Your task to perform on an android device: check android version Image 0: 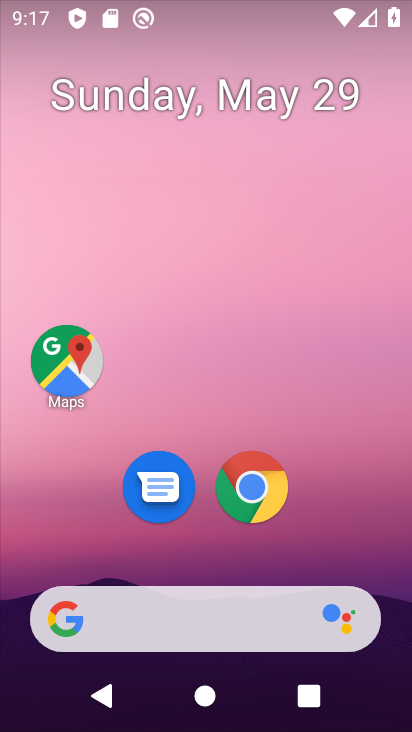
Step 0: drag from (394, 696) to (304, 186)
Your task to perform on an android device: check android version Image 1: 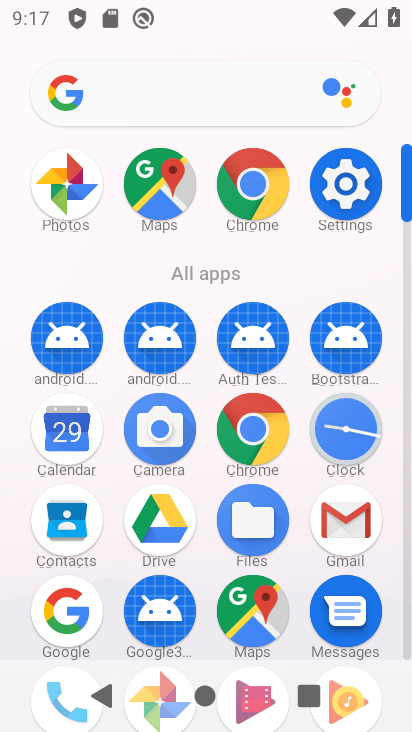
Step 1: click (336, 179)
Your task to perform on an android device: check android version Image 2: 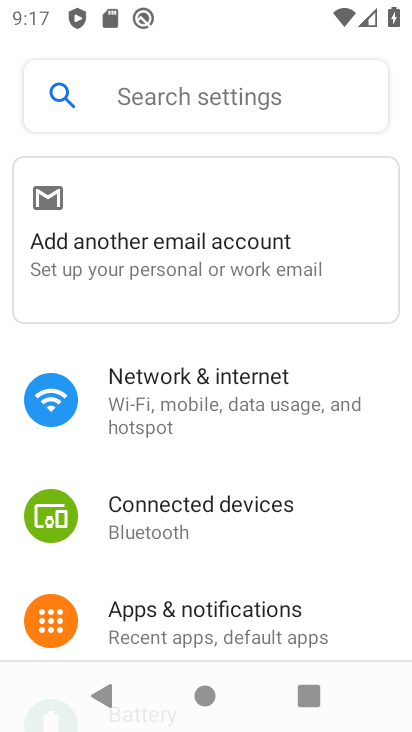
Step 2: drag from (333, 640) to (331, 120)
Your task to perform on an android device: check android version Image 3: 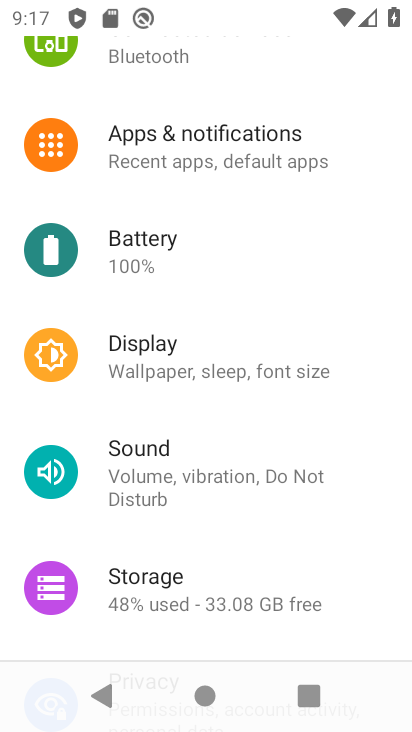
Step 3: drag from (366, 658) to (297, 0)
Your task to perform on an android device: check android version Image 4: 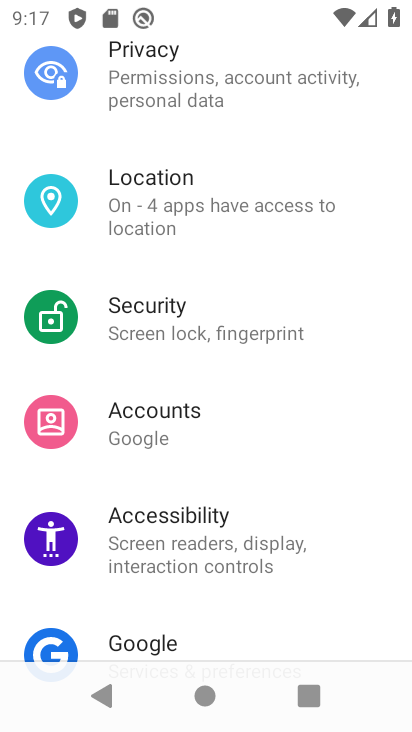
Step 4: drag from (331, 649) to (284, 27)
Your task to perform on an android device: check android version Image 5: 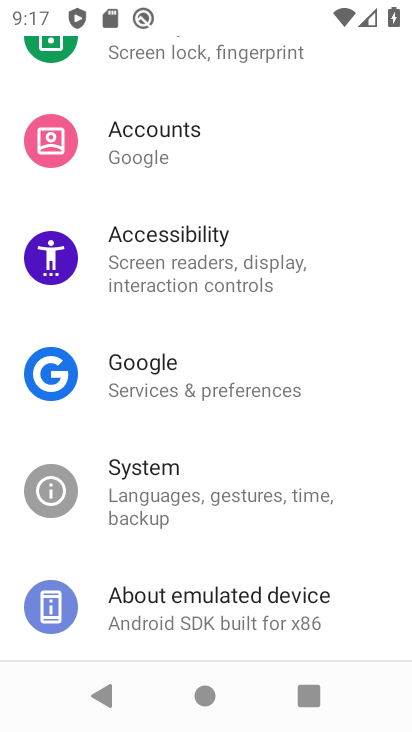
Step 5: click (170, 597)
Your task to perform on an android device: check android version Image 6: 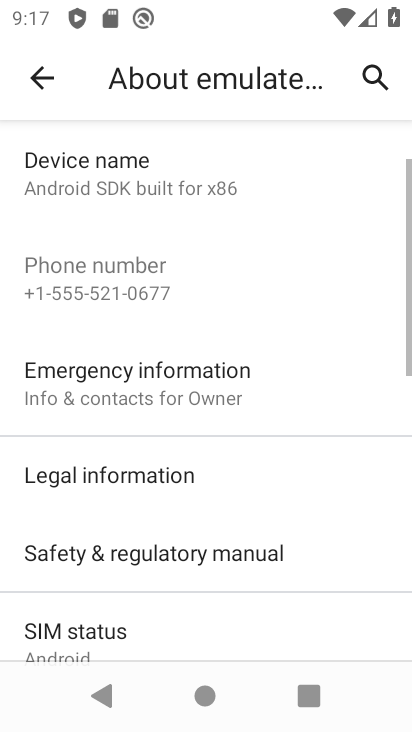
Step 6: drag from (294, 639) to (277, 254)
Your task to perform on an android device: check android version Image 7: 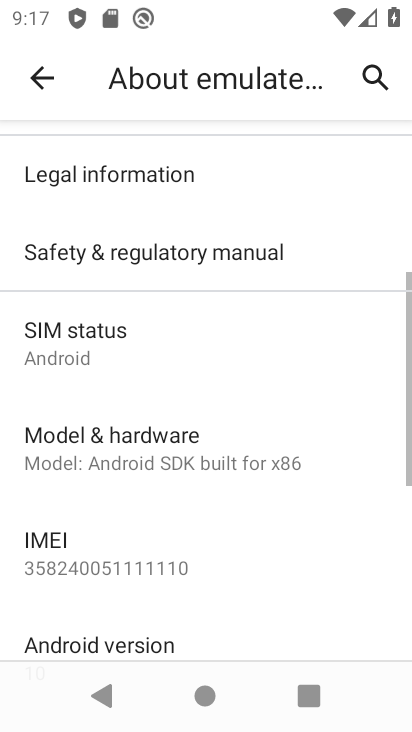
Step 7: drag from (220, 632) to (236, 353)
Your task to perform on an android device: check android version Image 8: 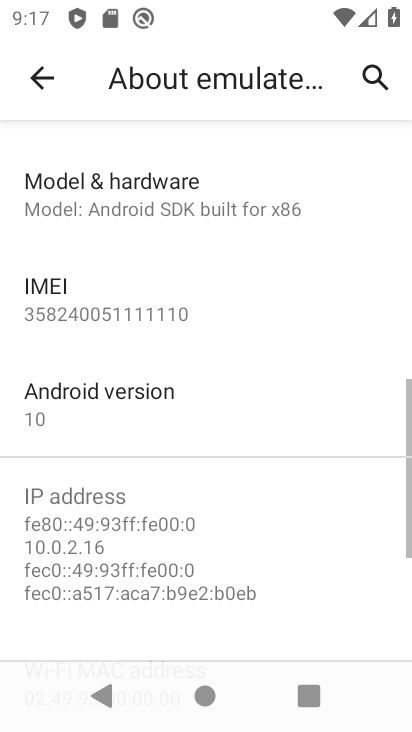
Step 8: click (81, 403)
Your task to perform on an android device: check android version Image 9: 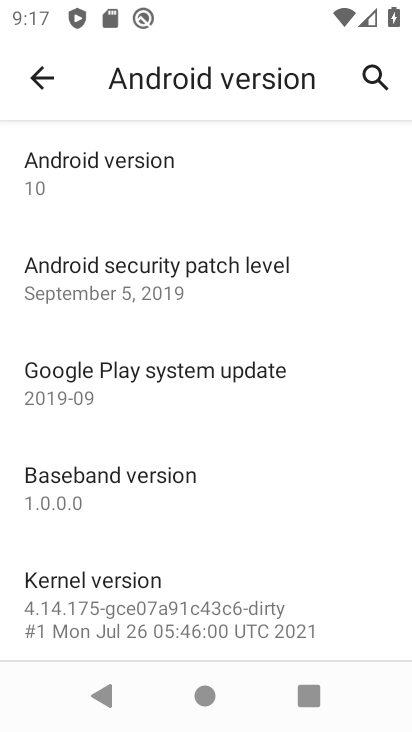
Step 9: click (67, 179)
Your task to perform on an android device: check android version Image 10: 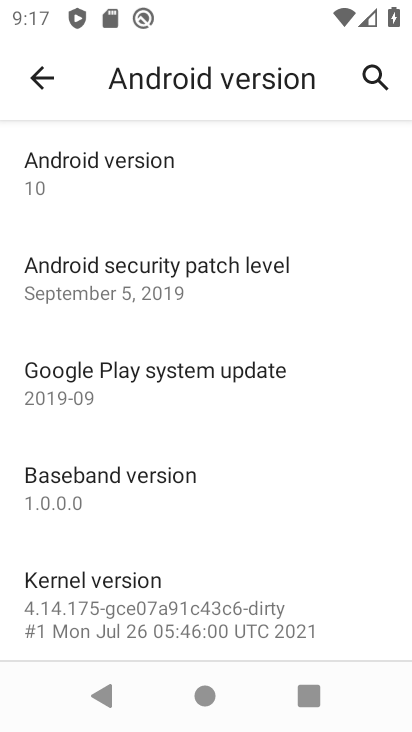
Step 10: task complete